Your task to perform on an android device: Add "usb-a to usb-b" to the cart on bestbuy, then select checkout. Image 0: 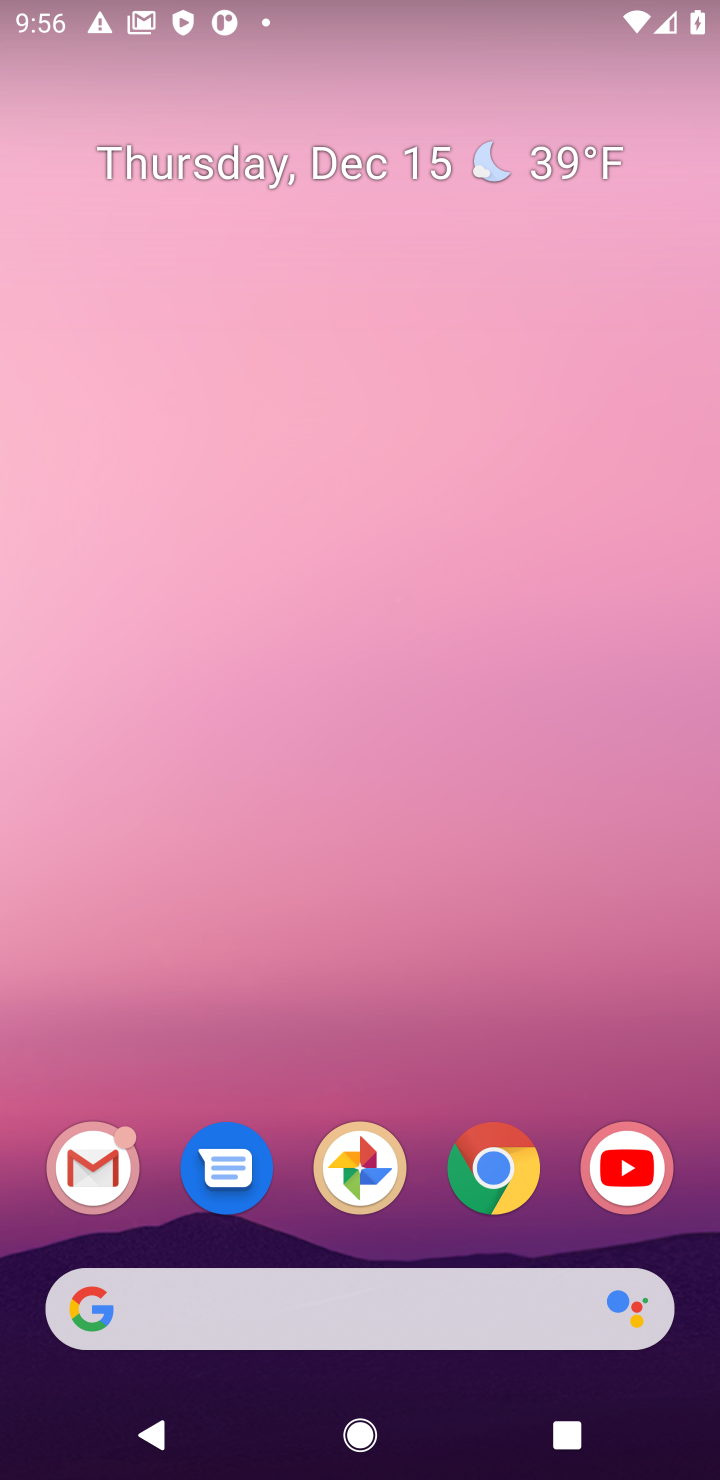
Step 0: click (492, 1166)
Your task to perform on an android device: Add "usb-a to usb-b" to the cart on bestbuy, then select checkout. Image 1: 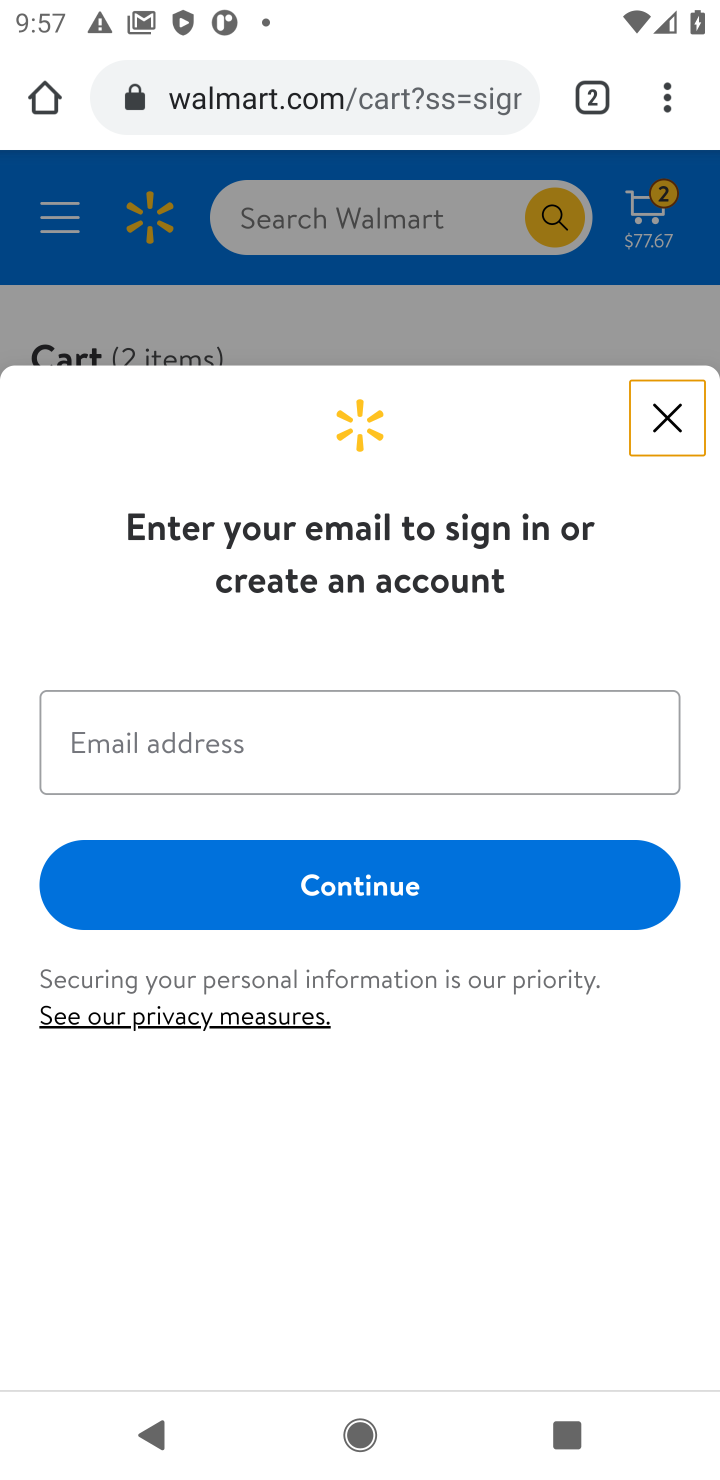
Step 1: click (652, 412)
Your task to perform on an android device: Add "usb-a to usb-b" to the cart on bestbuy, then select checkout. Image 2: 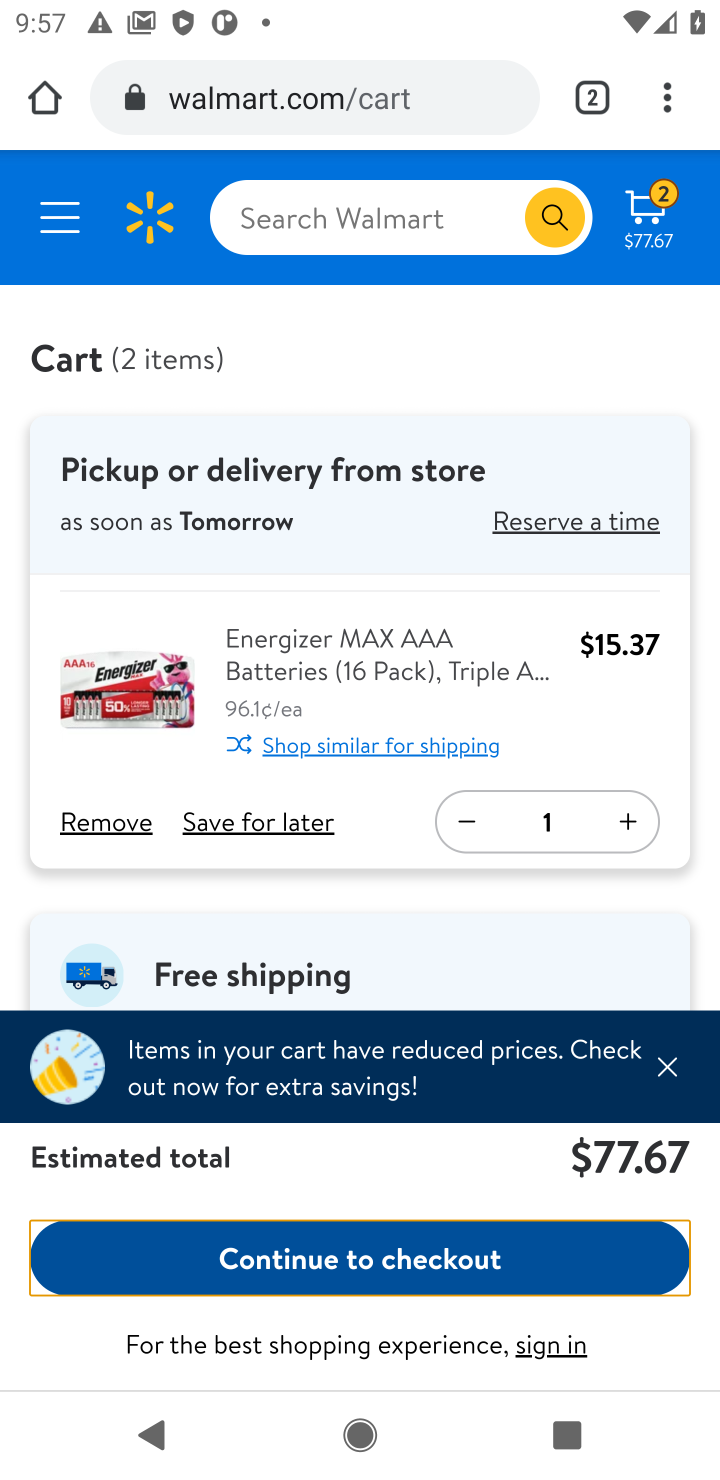
Step 2: click (457, 231)
Your task to perform on an android device: Add "usb-a to usb-b" to the cart on bestbuy, then select checkout. Image 3: 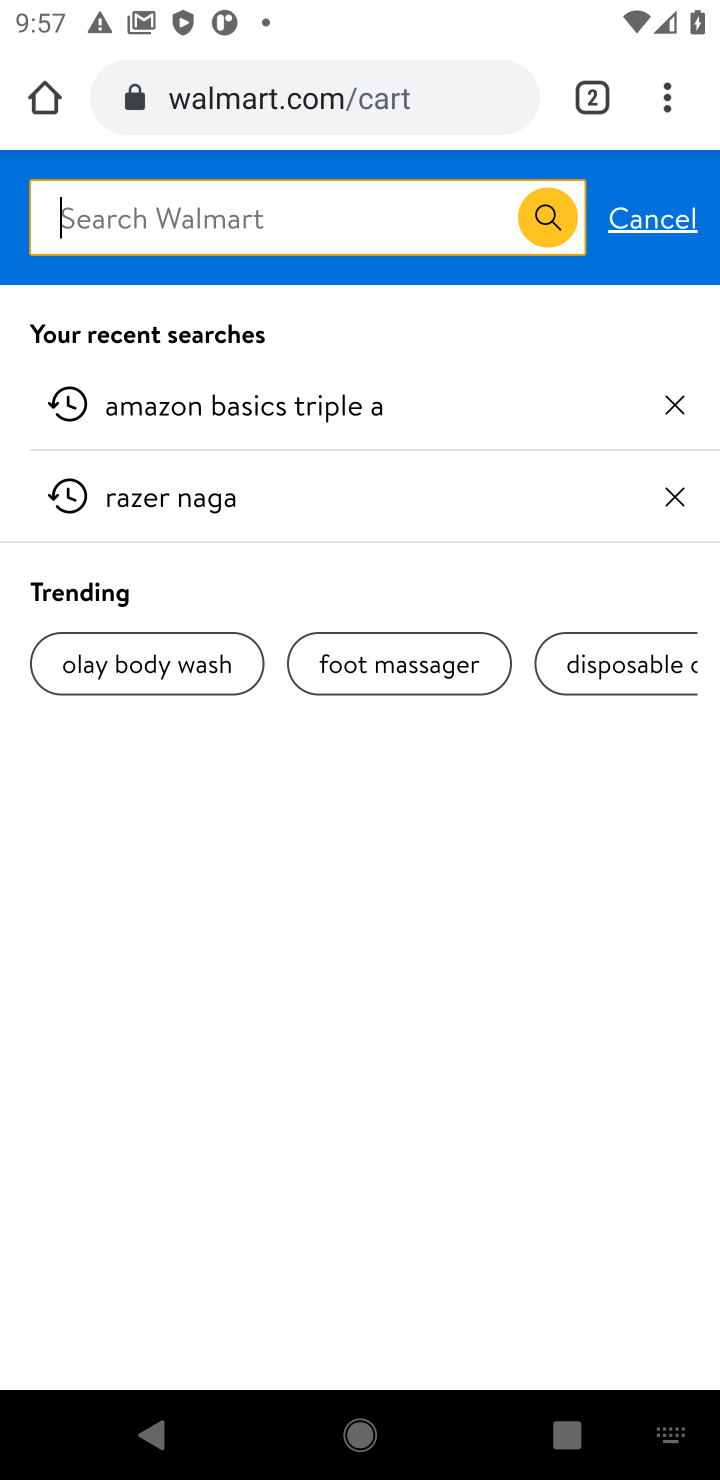
Step 3: click (425, 89)
Your task to perform on an android device: Add "usb-a to usb-b" to the cart on bestbuy, then select checkout. Image 4: 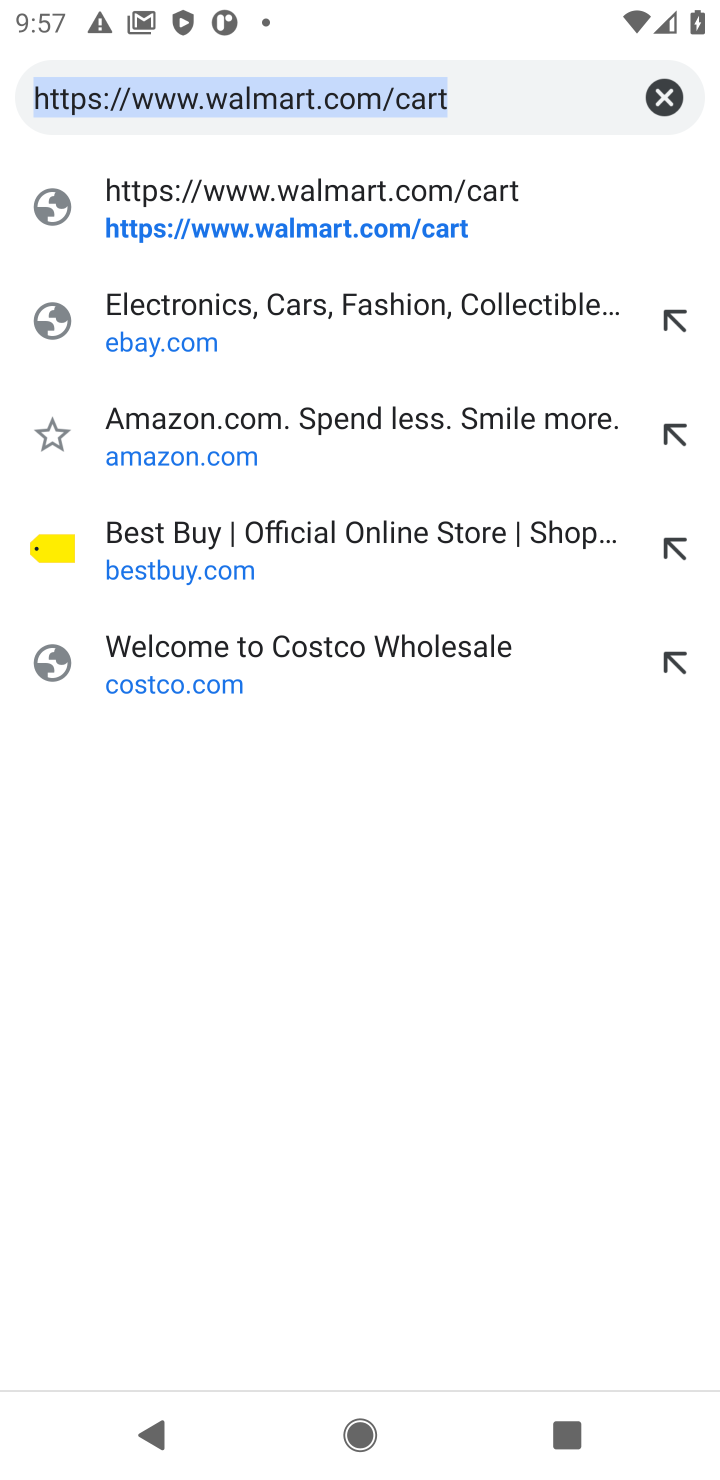
Step 4: click (264, 566)
Your task to perform on an android device: Add "usb-a to usb-b" to the cart on bestbuy, then select checkout. Image 5: 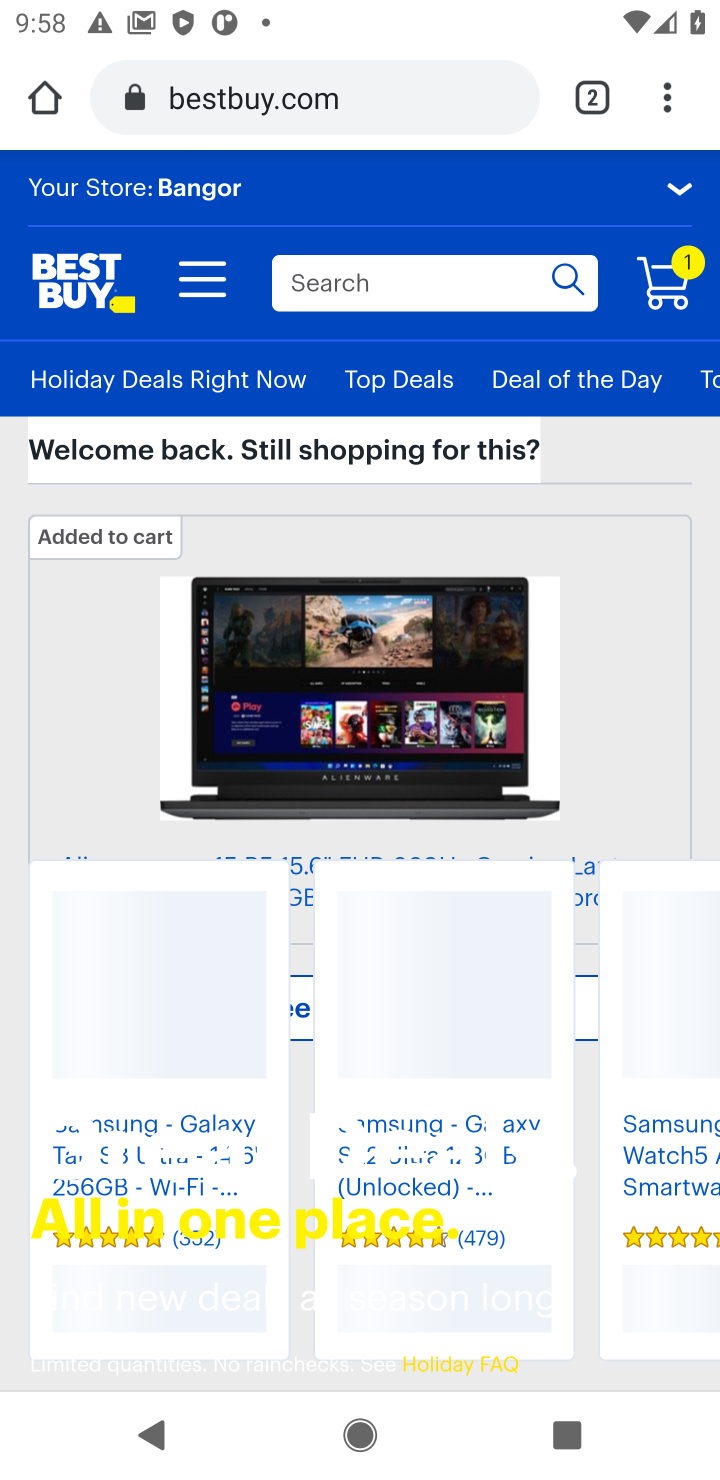
Step 5: click (433, 285)
Your task to perform on an android device: Add "usb-a to usb-b" to the cart on bestbuy, then select checkout. Image 6: 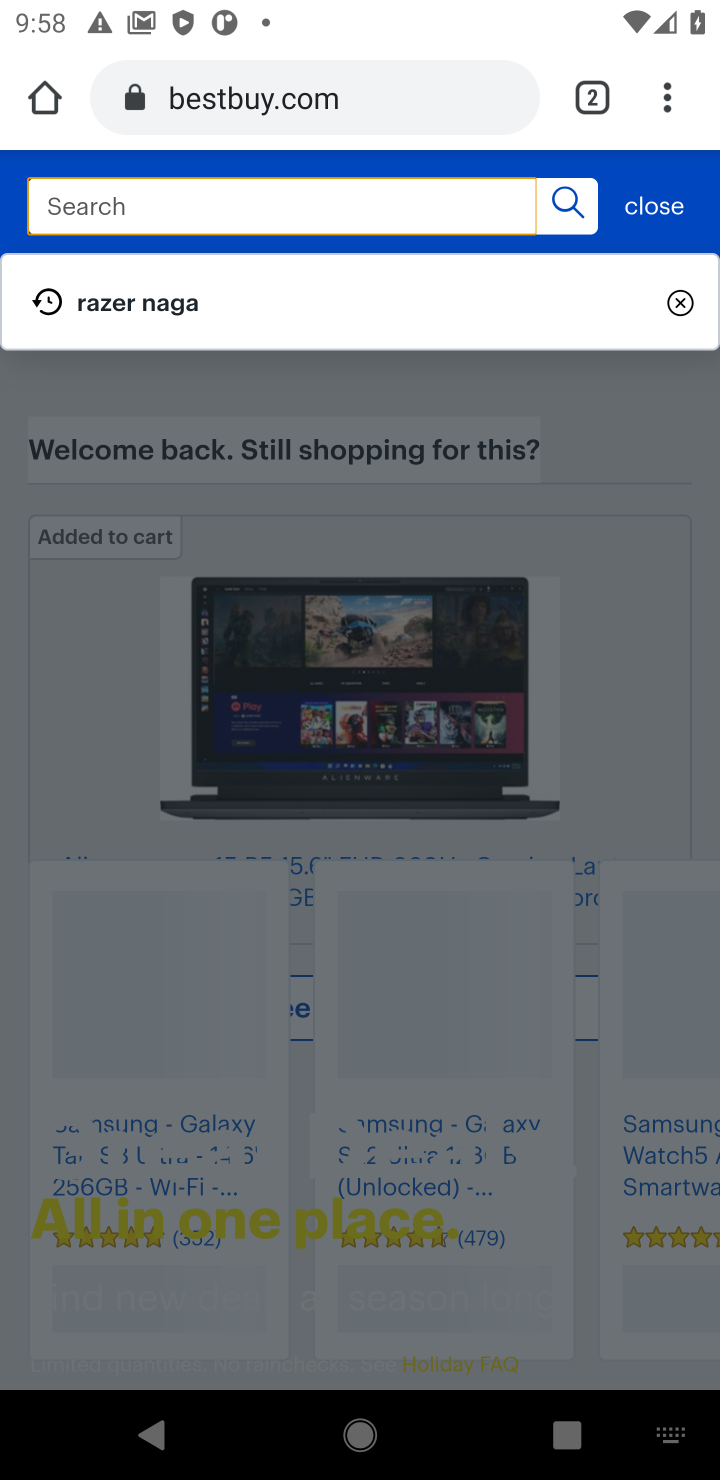
Step 6: type "usb-a to usb-b"
Your task to perform on an android device: Add "usb-a to usb-b" to the cart on bestbuy, then select checkout. Image 7: 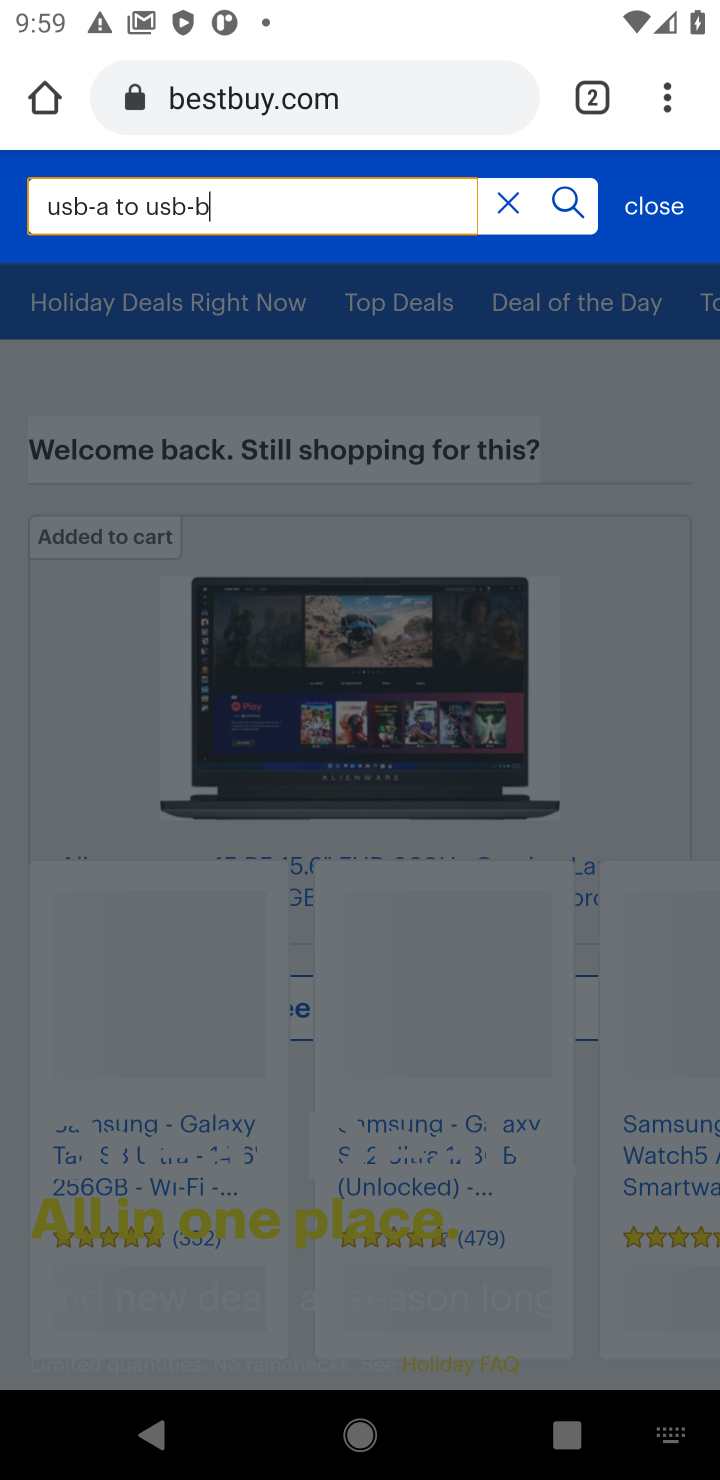
Step 7: click (573, 209)
Your task to perform on an android device: Add "usb-a to usb-b" to the cart on bestbuy, then select checkout. Image 8: 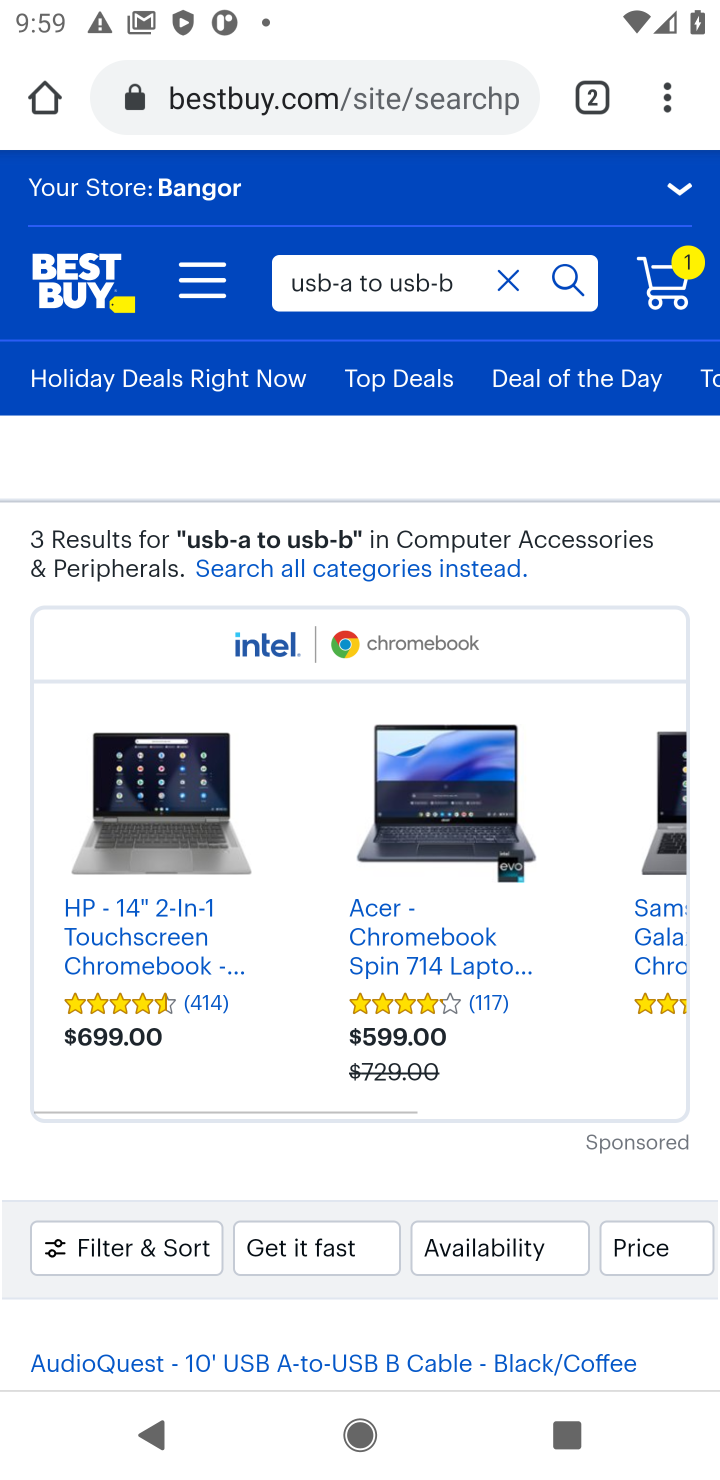
Step 8: drag from (428, 1297) to (485, 512)
Your task to perform on an android device: Add "usb-a to usb-b" to the cart on bestbuy, then select checkout. Image 9: 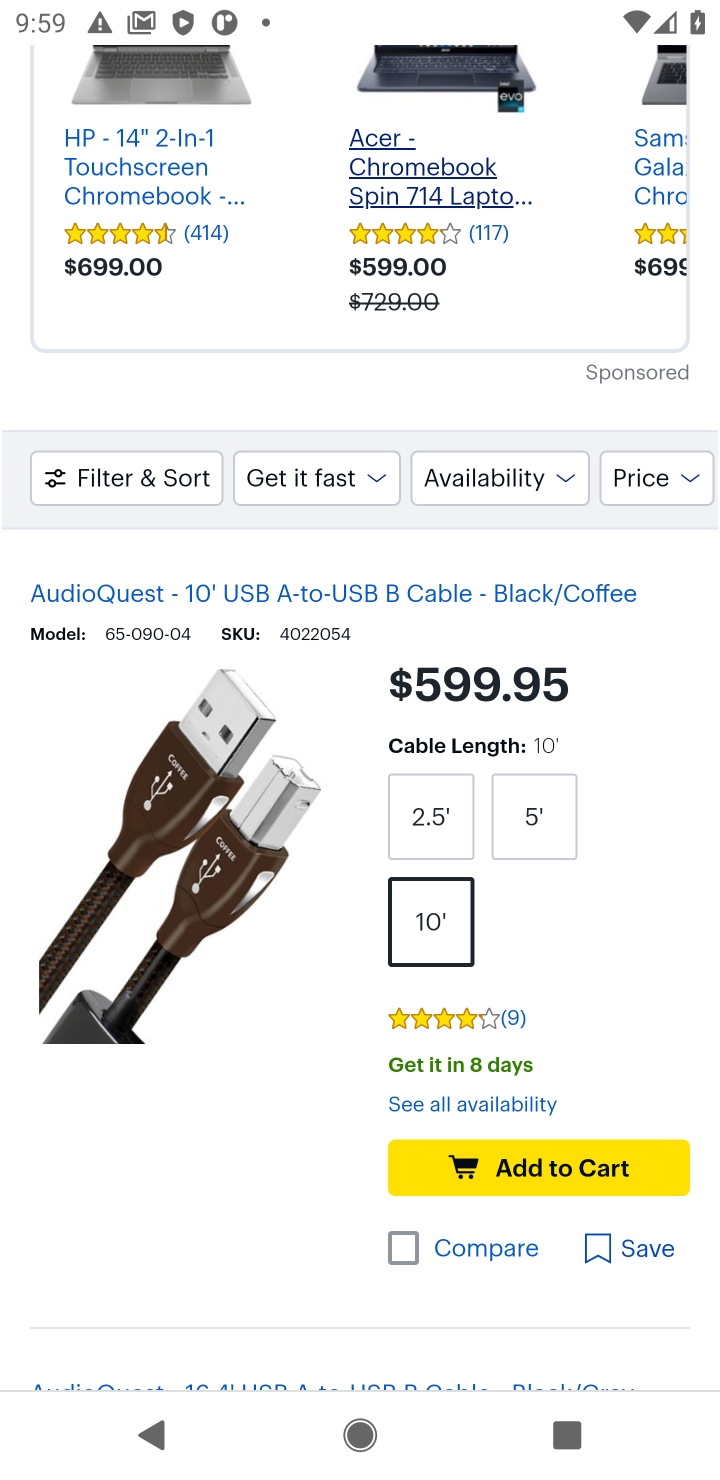
Step 9: click (567, 1173)
Your task to perform on an android device: Add "usb-a to usb-b" to the cart on bestbuy, then select checkout. Image 10: 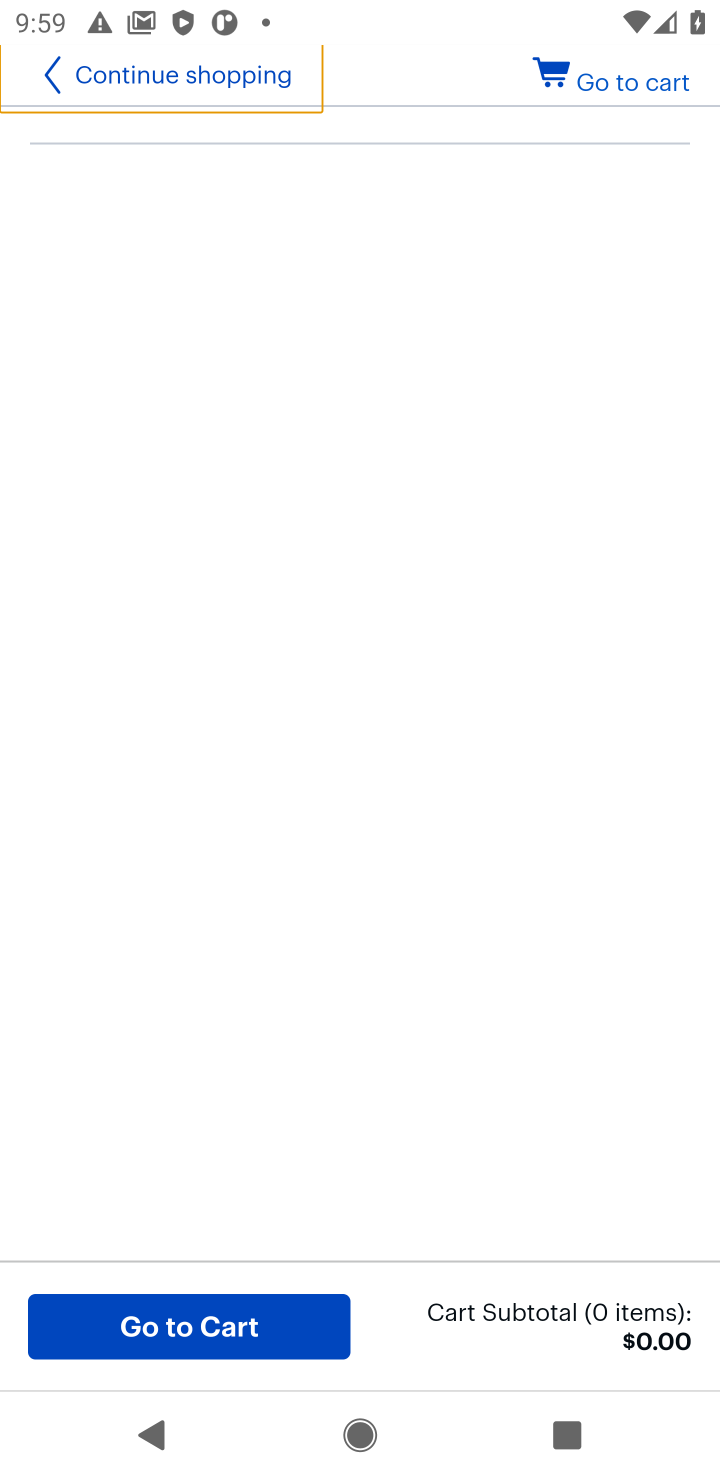
Step 10: task complete